Your task to perform on an android device: turn vacation reply on in the gmail app Image 0: 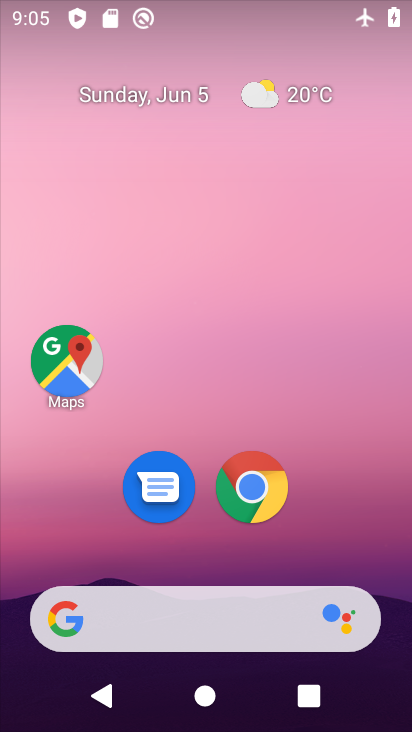
Step 0: drag from (301, 495) to (320, 397)
Your task to perform on an android device: turn vacation reply on in the gmail app Image 1: 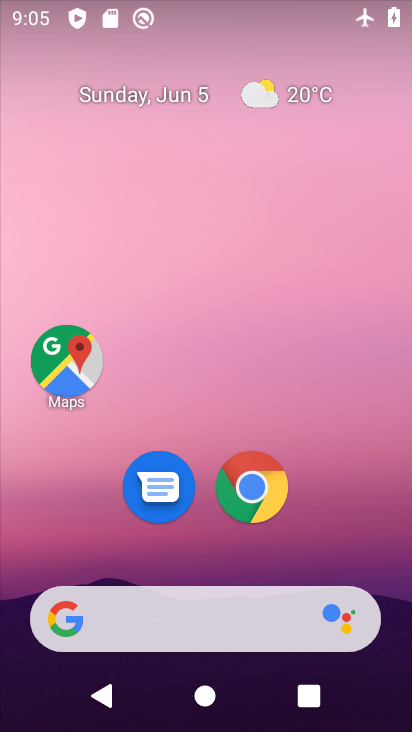
Step 1: drag from (238, 405) to (231, 345)
Your task to perform on an android device: turn vacation reply on in the gmail app Image 2: 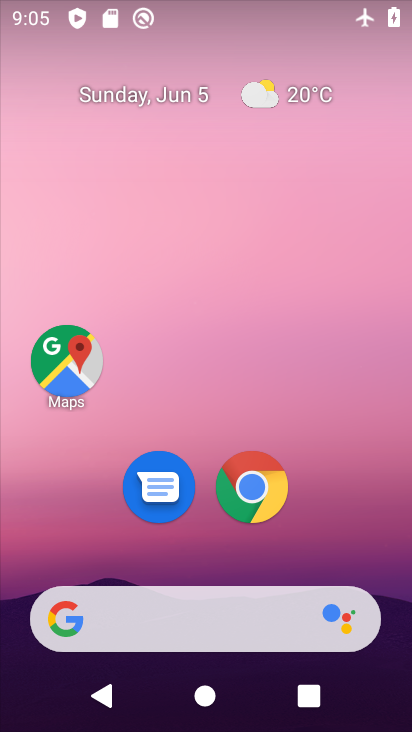
Step 2: drag from (235, 572) to (220, 154)
Your task to perform on an android device: turn vacation reply on in the gmail app Image 3: 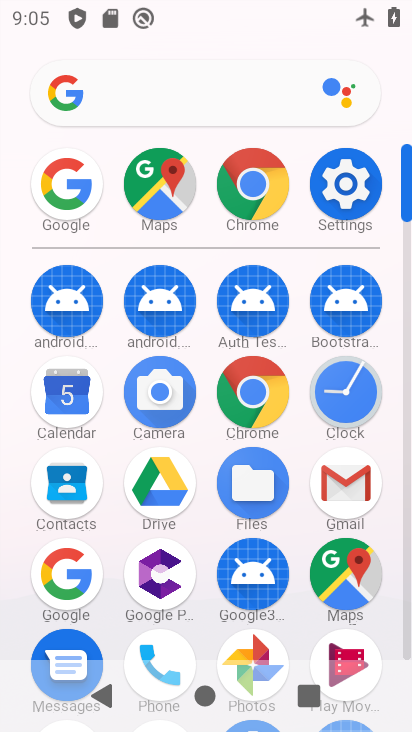
Step 3: click (361, 507)
Your task to perform on an android device: turn vacation reply on in the gmail app Image 4: 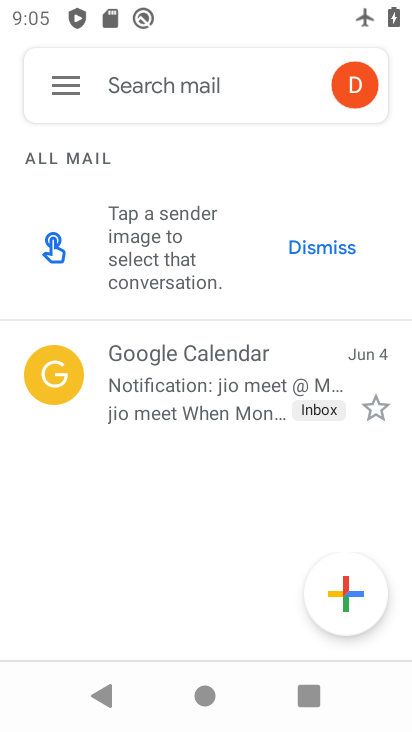
Step 4: click (60, 79)
Your task to perform on an android device: turn vacation reply on in the gmail app Image 5: 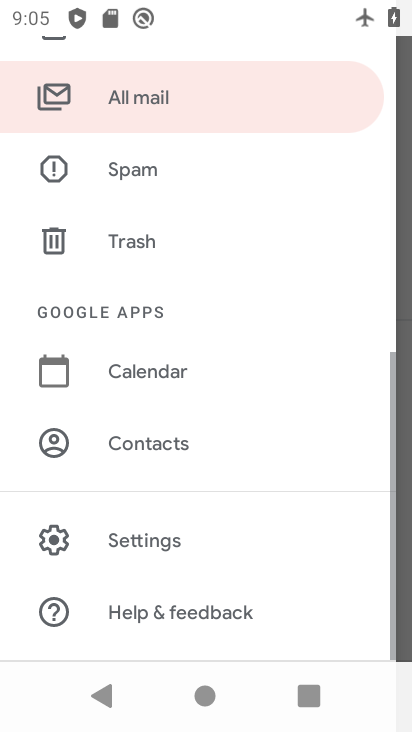
Step 5: click (143, 533)
Your task to perform on an android device: turn vacation reply on in the gmail app Image 6: 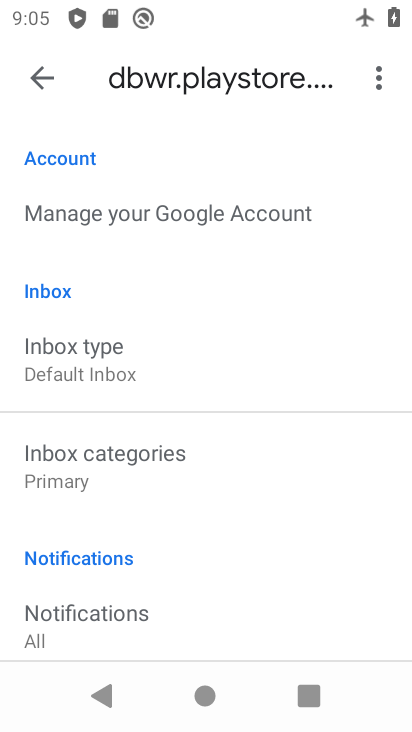
Step 6: drag from (165, 386) to (155, 258)
Your task to perform on an android device: turn vacation reply on in the gmail app Image 7: 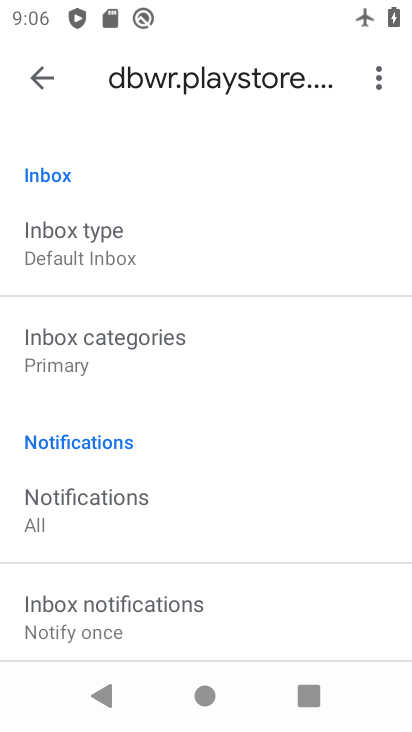
Step 7: drag from (238, 545) to (238, 271)
Your task to perform on an android device: turn vacation reply on in the gmail app Image 8: 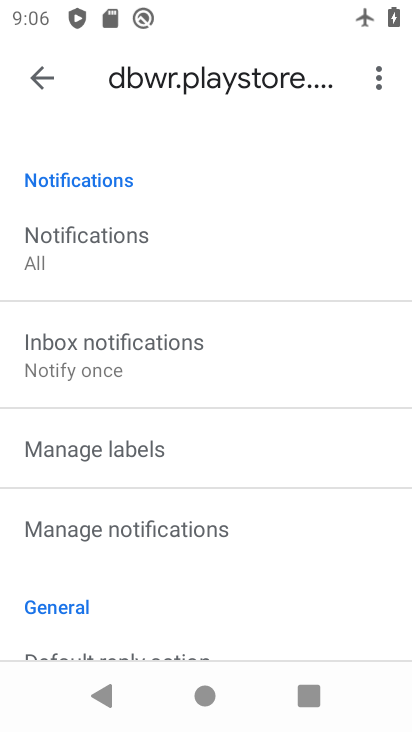
Step 8: click (168, 204)
Your task to perform on an android device: turn vacation reply on in the gmail app Image 9: 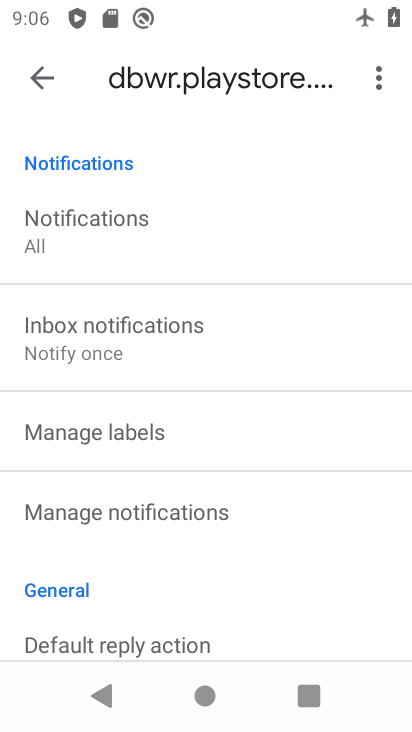
Step 9: drag from (229, 486) to (273, 279)
Your task to perform on an android device: turn vacation reply on in the gmail app Image 10: 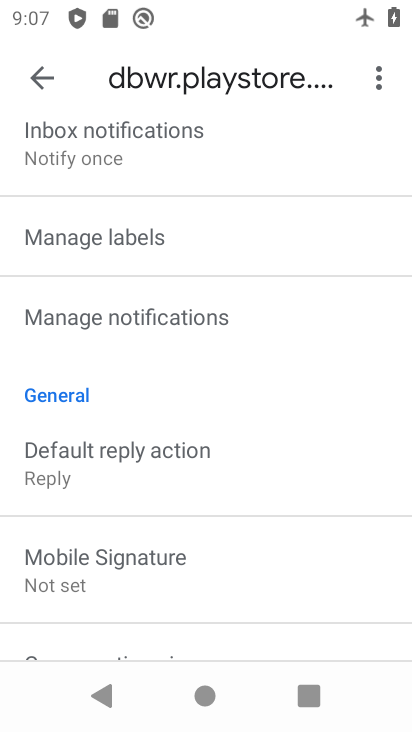
Step 10: drag from (156, 487) to (156, 367)
Your task to perform on an android device: turn vacation reply on in the gmail app Image 11: 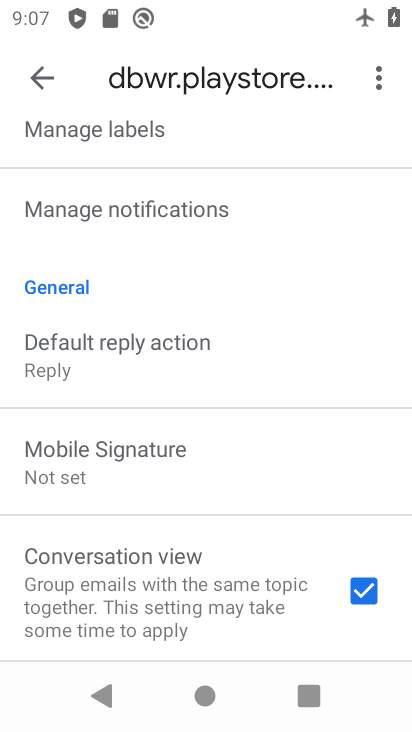
Step 11: drag from (156, 560) to (131, 241)
Your task to perform on an android device: turn vacation reply on in the gmail app Image 12: 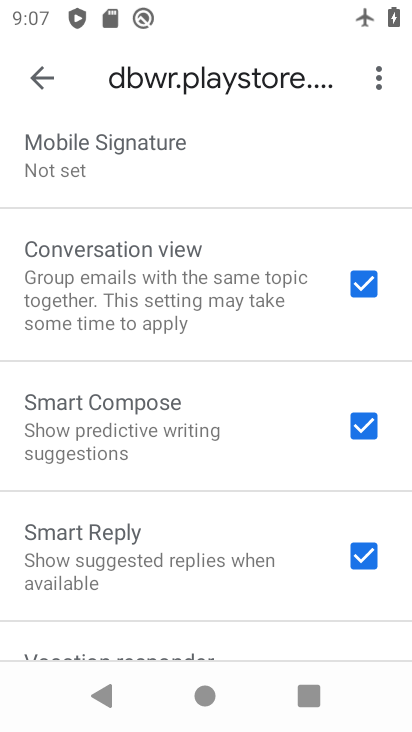
Step 12: drag from (170, 600) to (157, 392)
Your task to perform on an android device: turn vacation reply on in the gmail app Image 13: 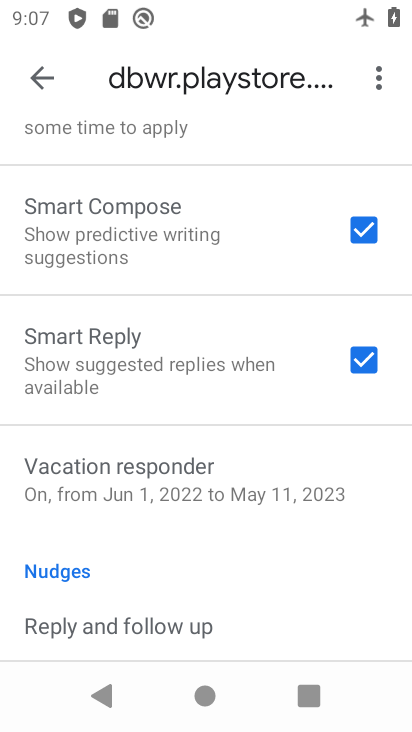
Step 13: click (162, 483)
Your task to perform on an android device: turn vacation reply on in the gmail app Image 14: 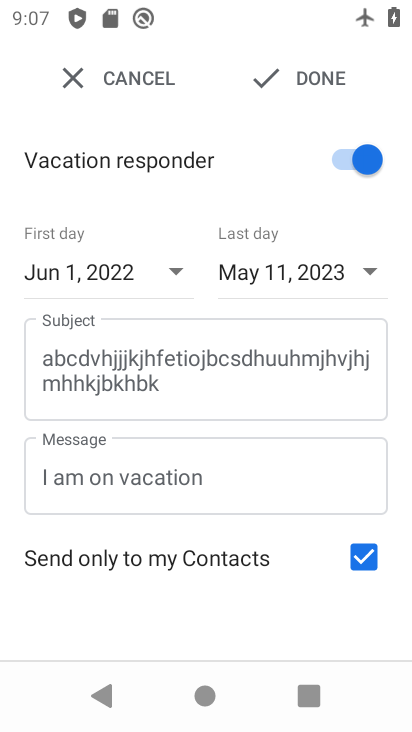
Step 14: task complete